Your task to perform on an android device: Open Maps and search for coffee Image 0: 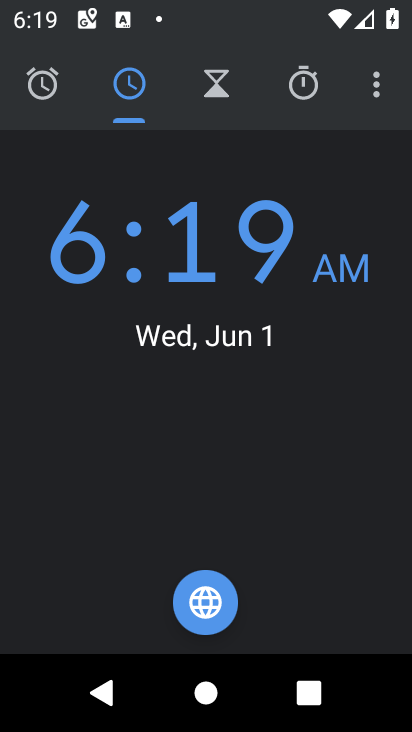
Step 0: press home button
Your task to perform on an android device: Open Maps and search for coffee Image 1: 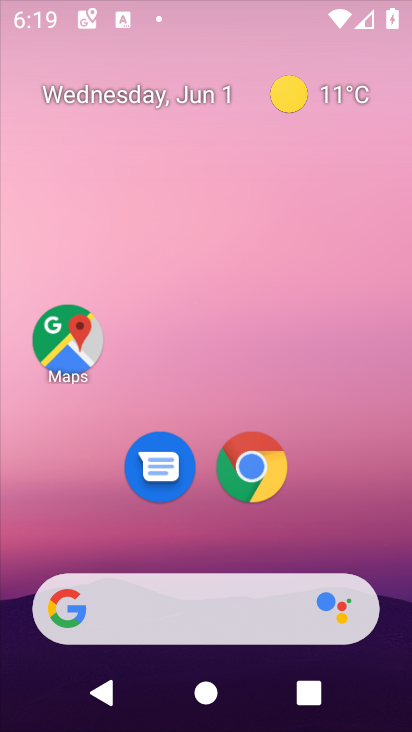
Step 1: click (54, 345)
Your task to perform on an android device: Open Maps and search for coffee Image 2: 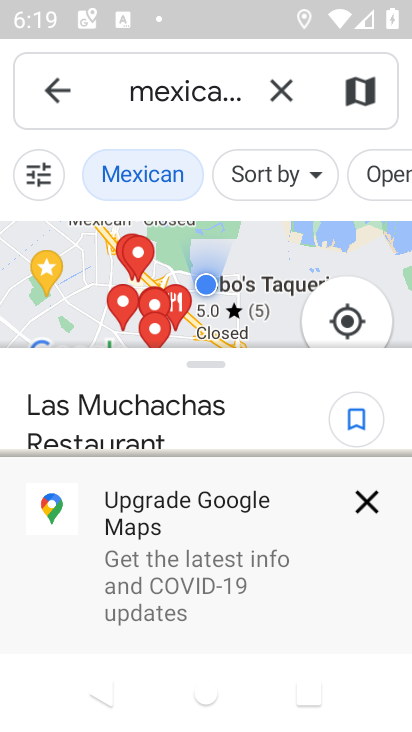
Step 2: click (283, 84)
Your task to perform on an android device: Open Maps and search for coffee Image 3: 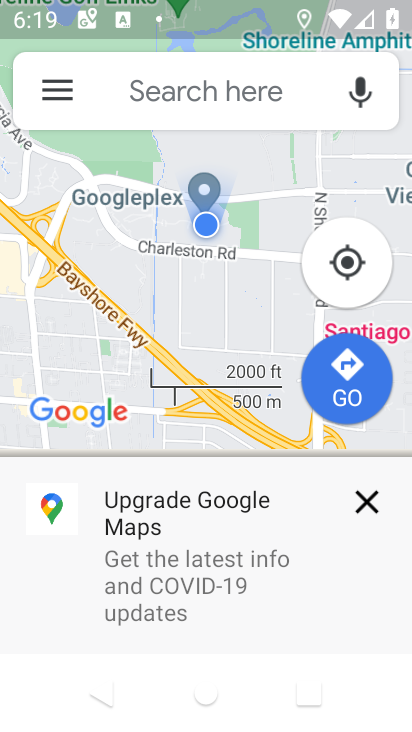
Step 3: click (228, 83)
Your task to perform on an android device: Open Maps and search for coffee Image 4: 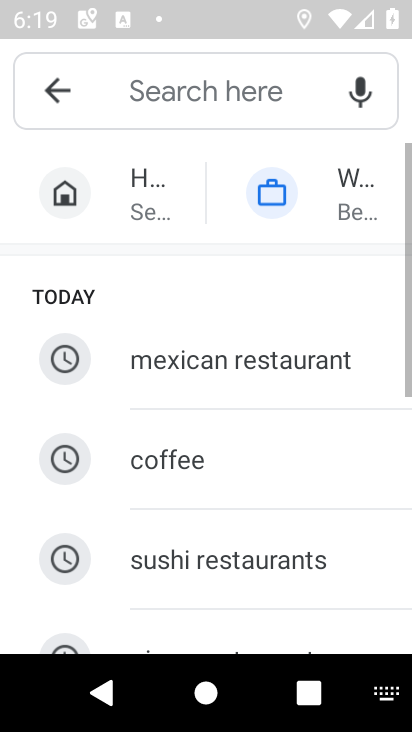
Step 4: click (275, 446)
Your task to perform on an android device: Open Maps and search for coffee Image 5: 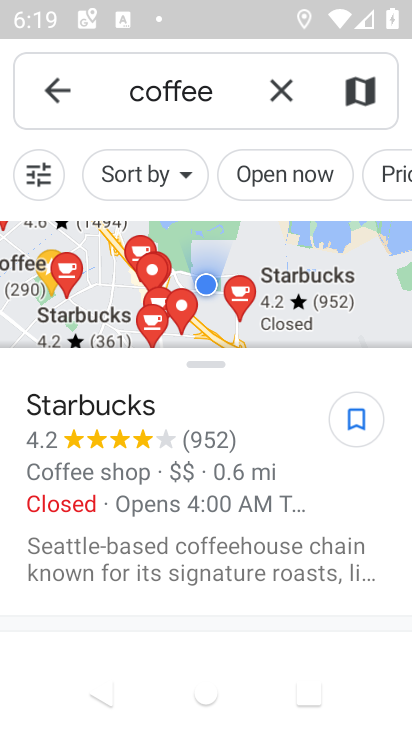
Step 5: task complete